Your task to perform on an android device: turn off notifications settings in the gmail app Image 0: 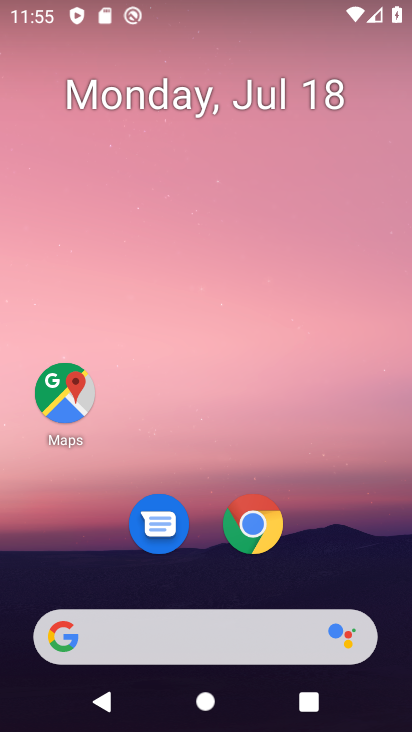
Step 0: drag from (174, 584) to (260, 22)
Your task to perform on an android device: turn off notifications settings in the gmail app Image 1: 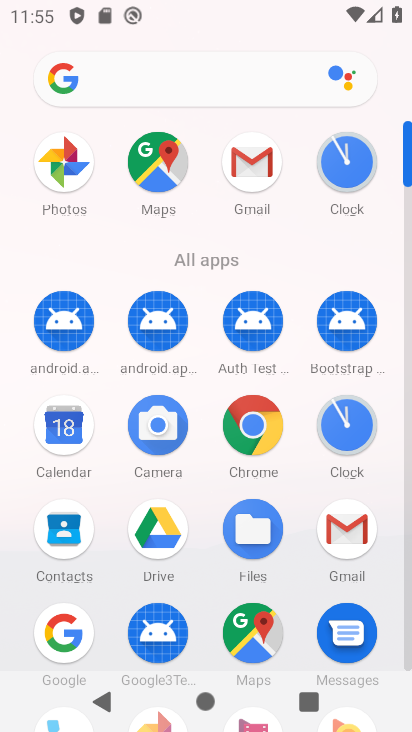
Step 1: click (369, 536)
Your task to perform on an android device: turn off notifications settings in the gmail app Image 2: 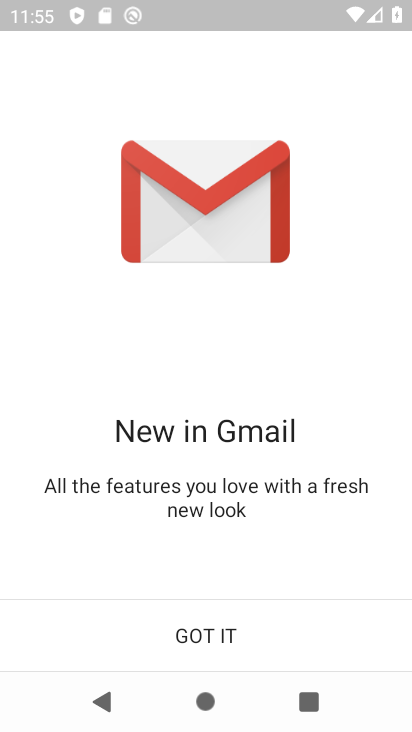
Step 2: click (229, 631)
Your task to perform on an android device: turn off notifications settings in the gmail app Image 3: 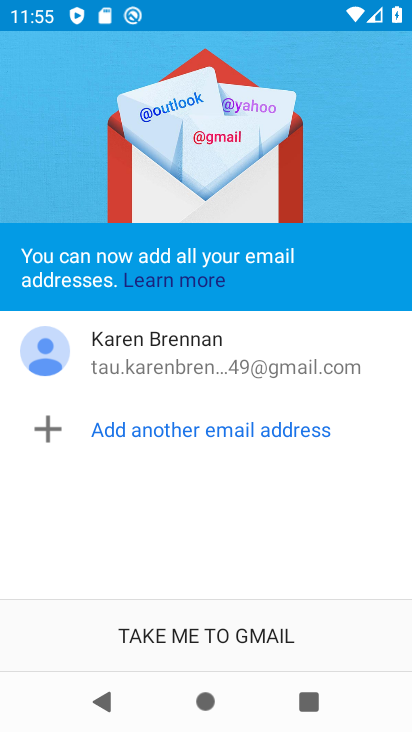
Step 3: click (229, 631)
Your task to perform on an android device: turn off notifications settings in the gmail app Image 4: 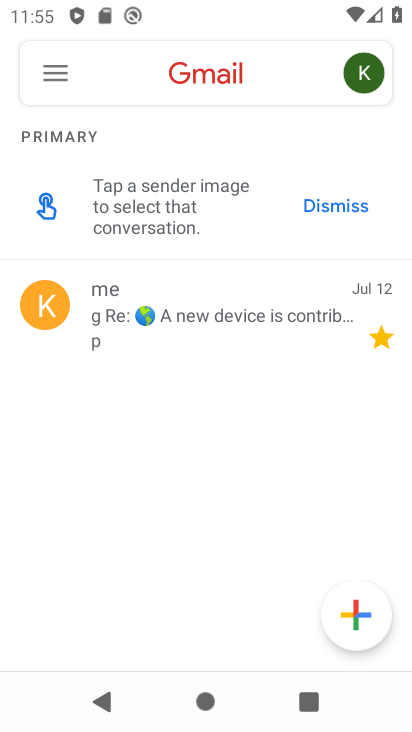
Step 4: click (35, 76)
Your task to perform on an android device: turn off notifications settings in the gmail app Image 5: 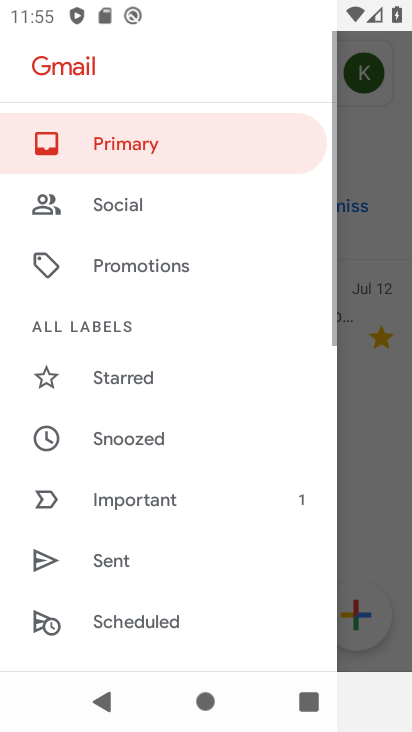
Step 5: drag from (138, 511) to (177, 10)
Your task to perform on an android device: turn off notifications settings in the gmail app Image 6: 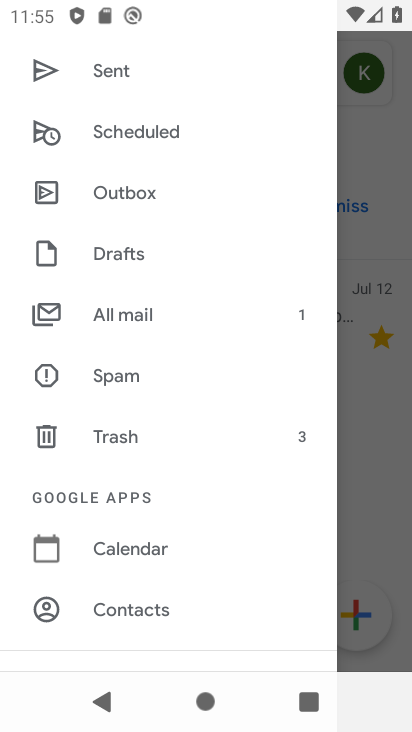
Step 6: drag from (151, 608) to (159, 106)
Your task to perform on an android device: turn off notifications settings in the gmail app Image 7: 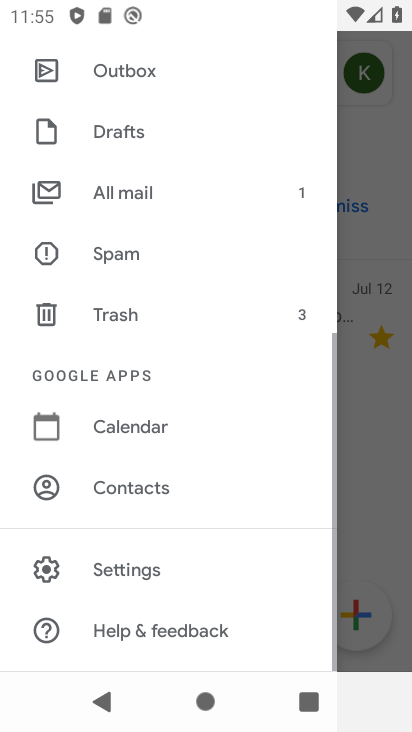
Step 7: click (156, 553)
Your task to perform on an android device: turn off notifications settings in the gmail app Image 8: 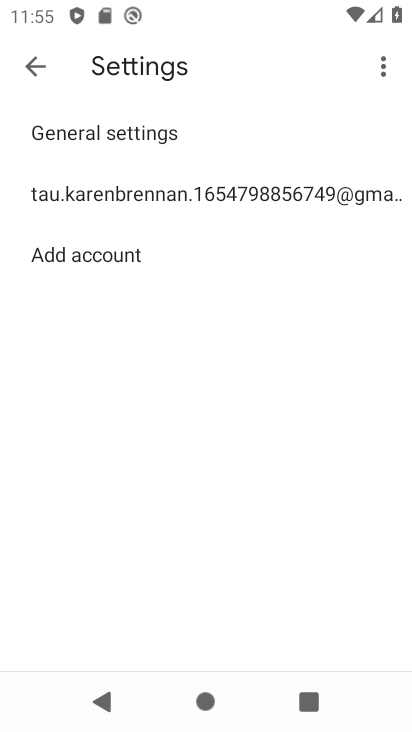
Step 8: click (91, 136)
Your task to perform on an android device: turn off notifications settings in the gmail app Image 9: 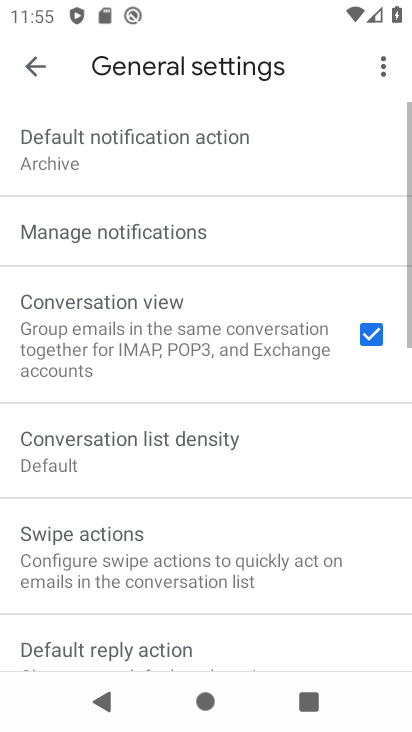
Step 9: click (125, 220)
Your task to perform on an android device: turn off notifications settings in the gmail app Image 10: 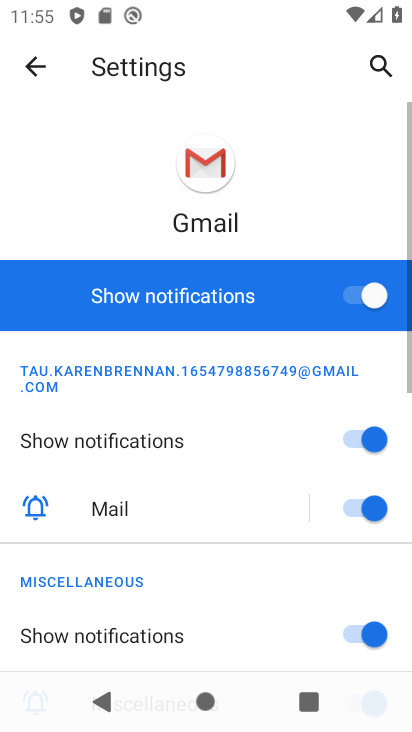
Step 10: click (360, 292)
Your task to perform on an android device: turn off notifications settings in the gmail app Image 11: 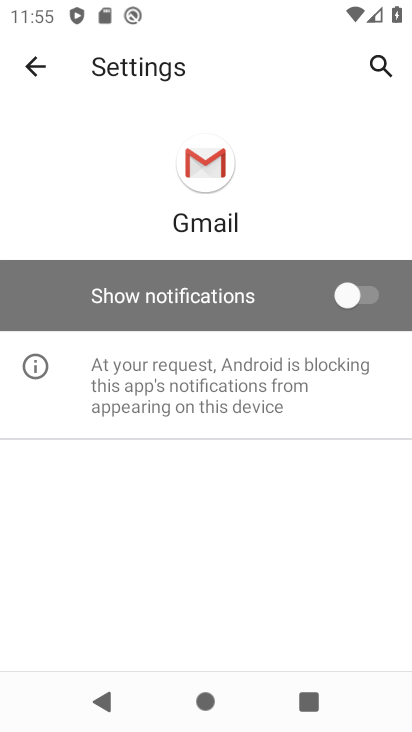
Step 11: task complete